Your task to perform on an android device: star an email in the gmail app Image 0: 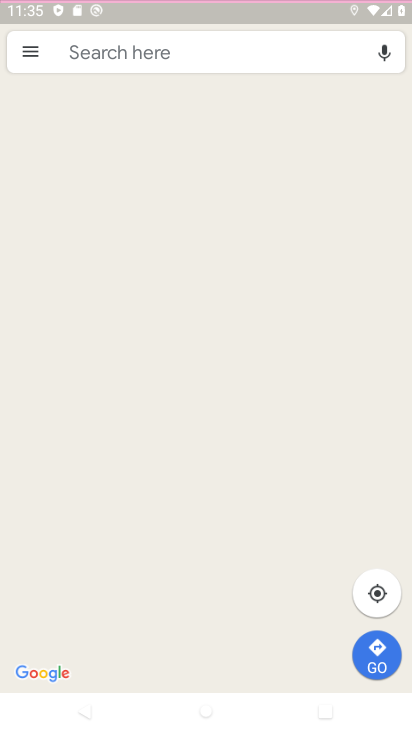
Step 0: drag from (280, 687) to (320, 63)
Your task to perform on an android device: star an email in the gmail app Image 1: 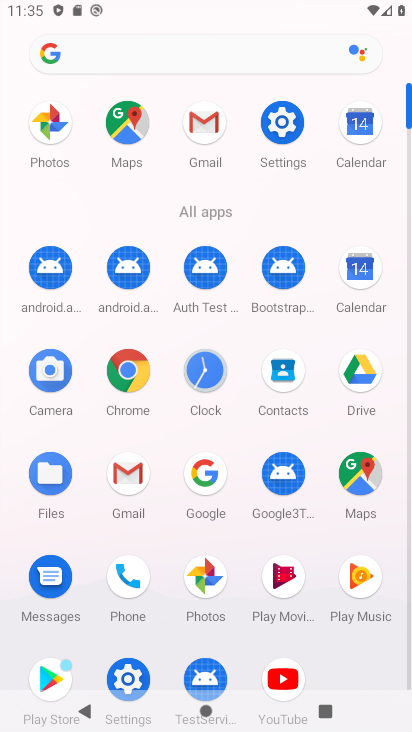
Step 1: press home button
Your task to perform on an android device: star an email in the gmail app Image 2: 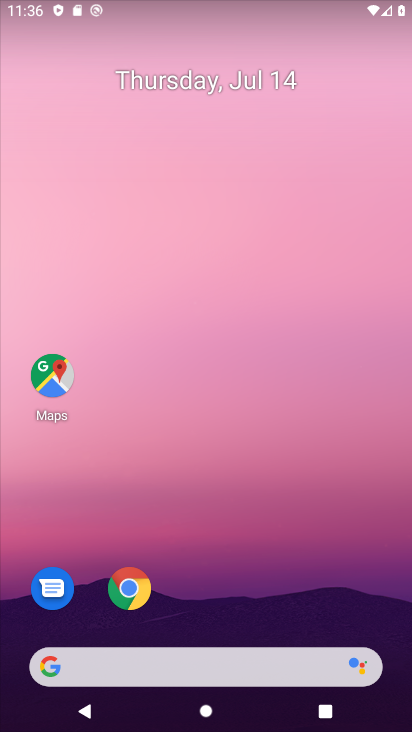
Step 2: drag from (280, 668) to (371, 107)
Your task to perform on an android device: star an email in the gmail app Image 3: 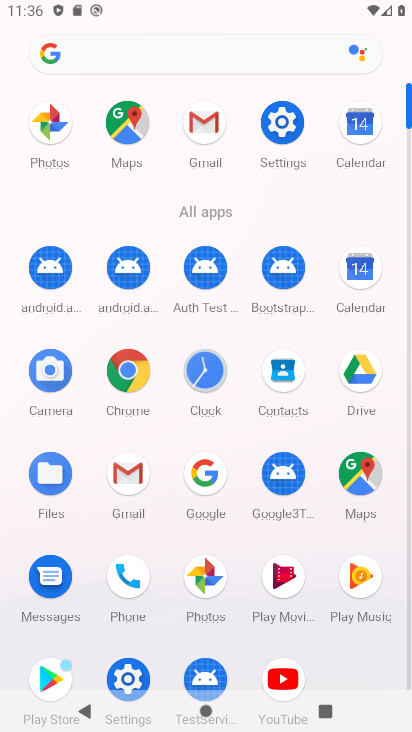
Step 3: click (210, 129)
Your task to perform on an android device: star an email in the gmail app Image 4: 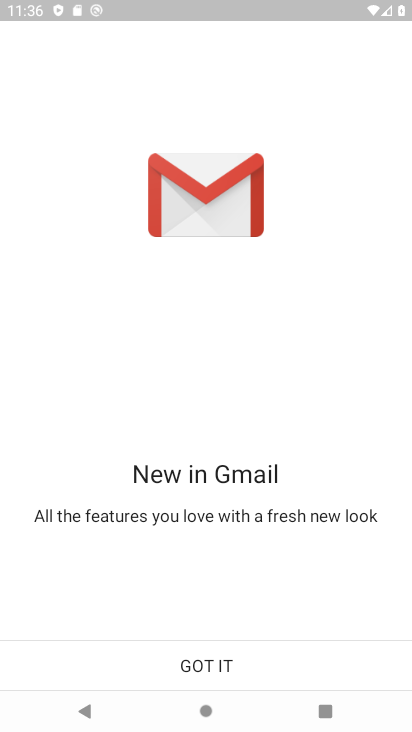
Step 4: click (220, 661)
Your task to perform on an android device: star an email in the gmail app Image 5: 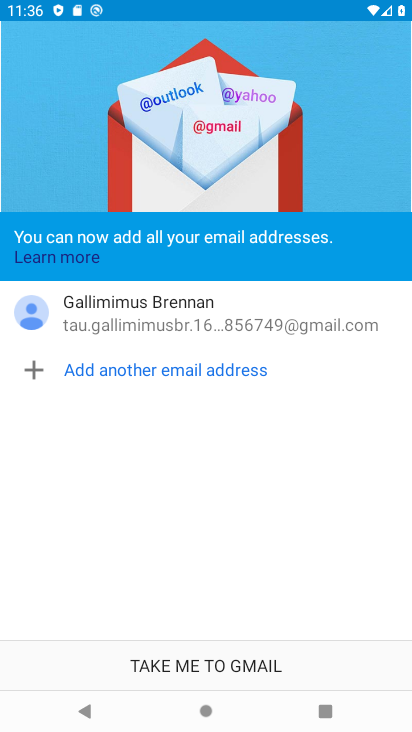
Step 5: click (230, 649)
Your task to perform on an android device: star an email in the gmail app Image 6: 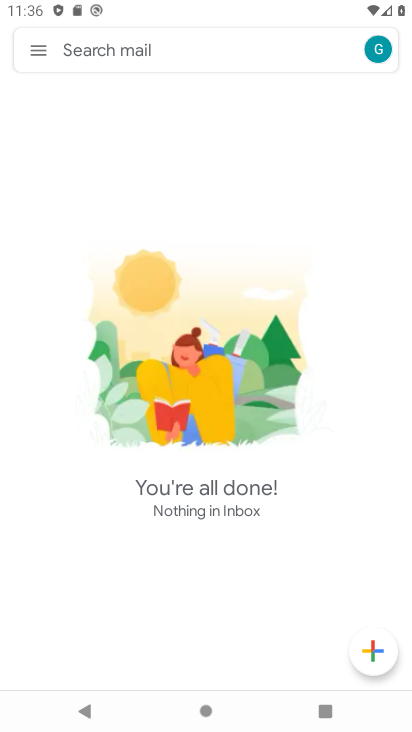
Step 6: task complete